Your task to perform on an android device: open a bookmark in the chrome app Image 0: 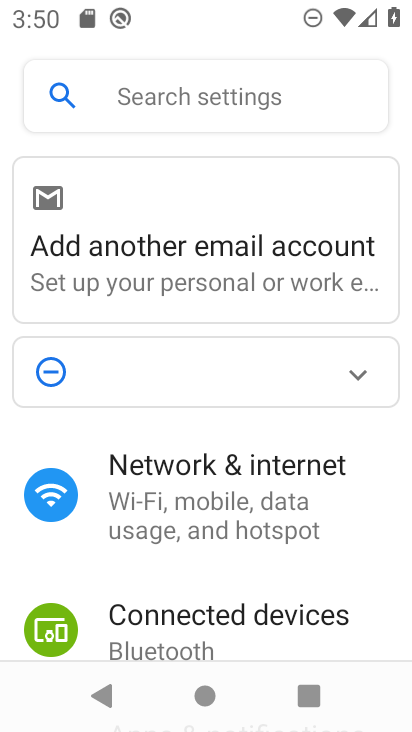
Step 0: press home button
Your task to perform on an android device: open a bookmark in the chrome app Image 1: 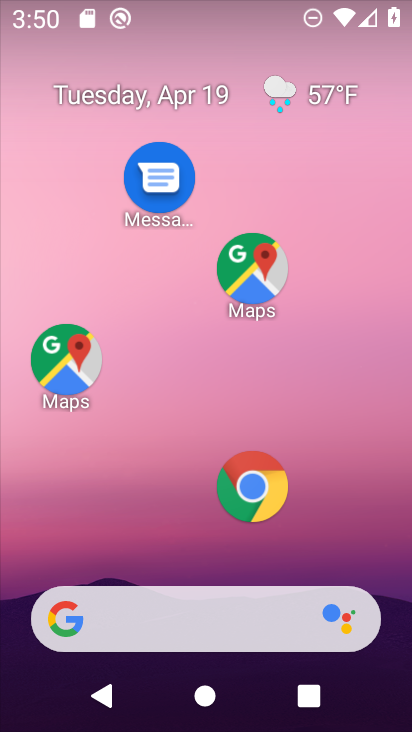
Step 1: click (266, 523)
Your task to perform on an android device: open a bookmark in the chrome app Image 2: 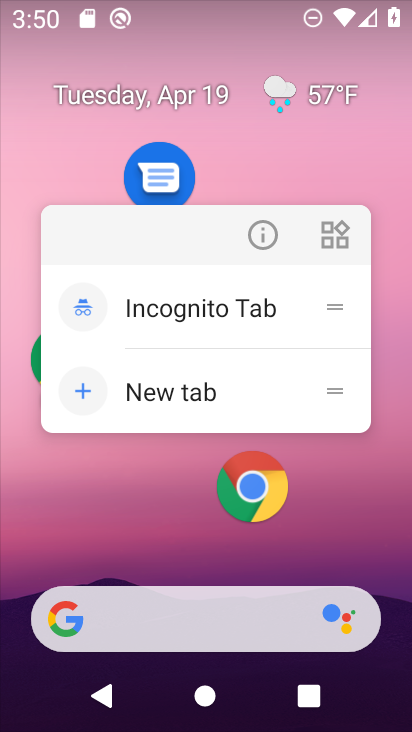
Step 2: click (266, 233)
Your task to perform on an android device: open a bookmark in the chrome app Image 3: 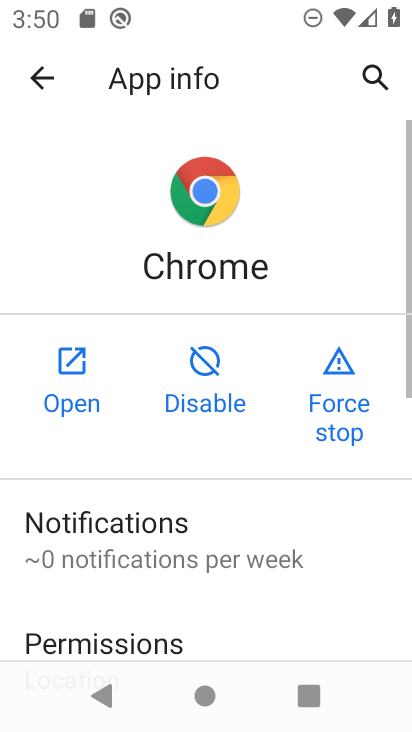
Step 3: click (72, 396)
Your task to perform on an android device: open a bookmark in the chrome app Image 4: 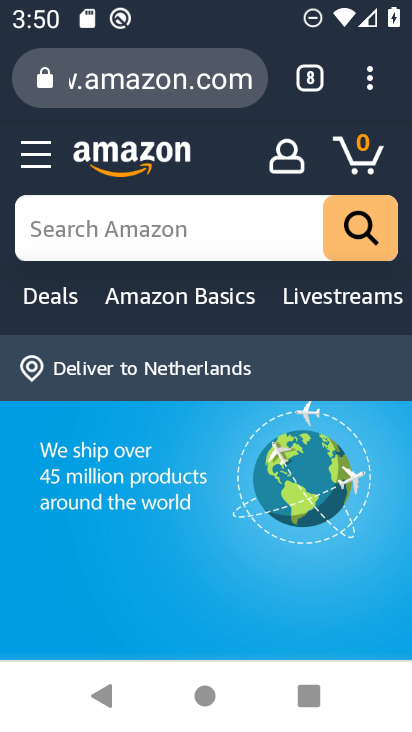
Step 4: click (370, 80)
Your task to perform on an android device: open a bookmark in the chrome app Image 5: 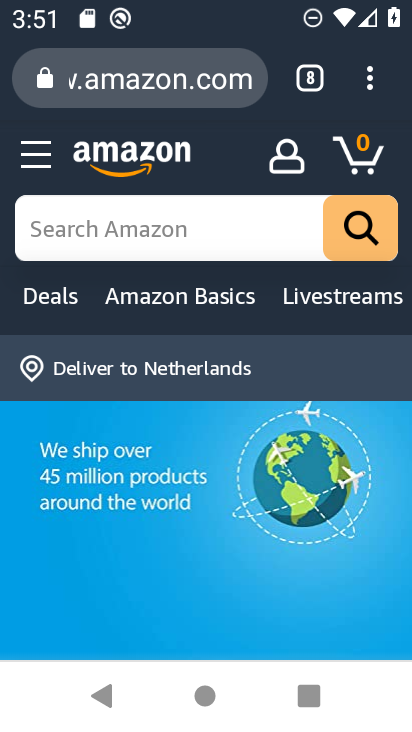
Step 5: click (366, 86)
Your task to perform on an android device: open a bookmark in the chrome app Image 6: 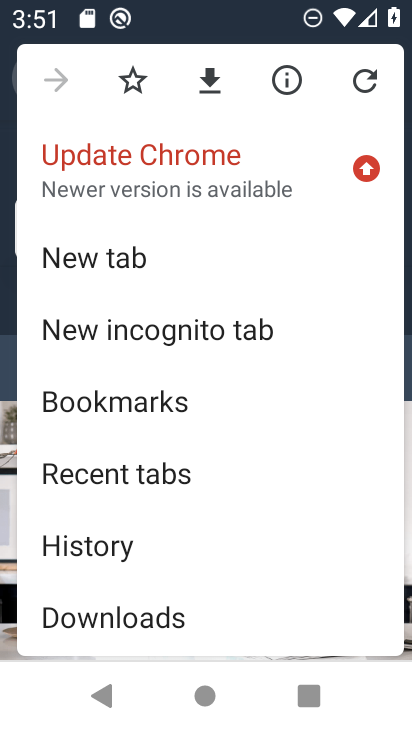
Step 6: click (170, 407)
Your task to perform on an android device: open a bookmark in the chrome app Image 7: 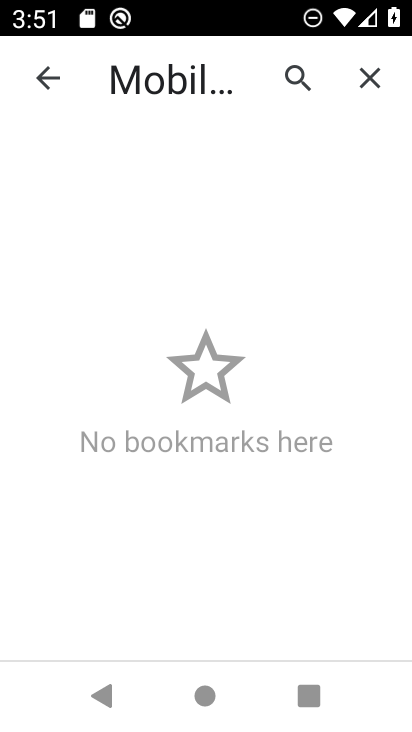
Step 7: task complete